Your task to perform on an android device: Go to display settings Image 0: 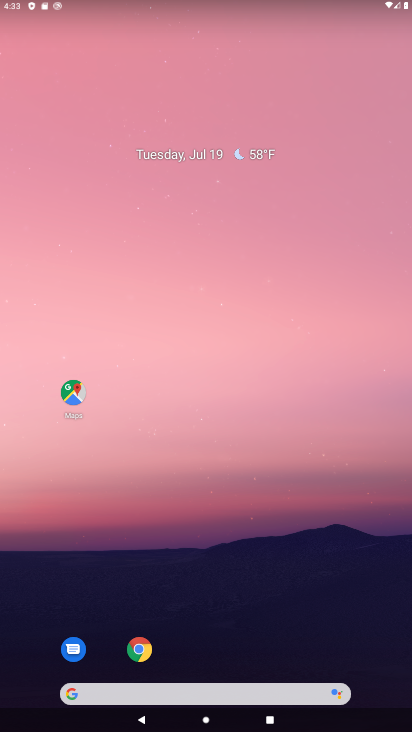
Step 0: drag from (255, 203) to (252, 88)
Your task to perform on an android device: Go to display settings Image 1: 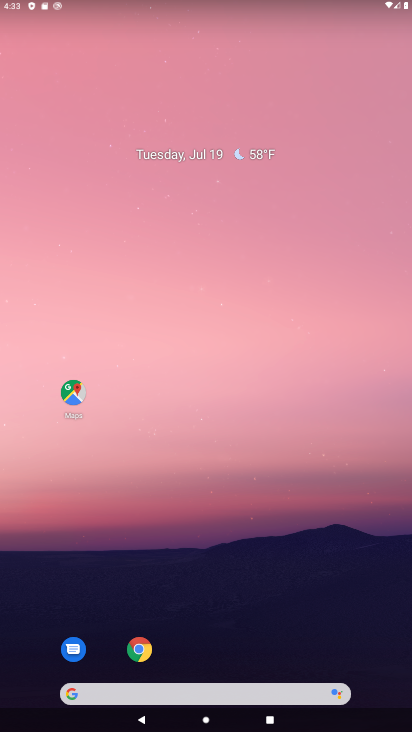
Step 1: drag from (311, 669) to (260, 141)
Your task to perform on an android device: Go to display settings Image 2: 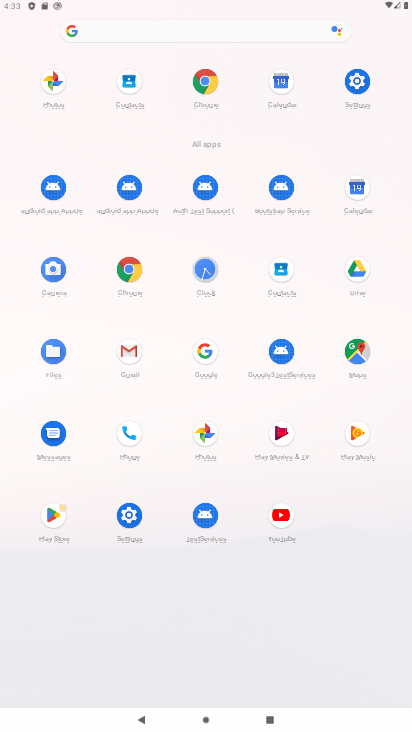
Step 2: click (352, 73)
Your task to perform on an android device: Go to display settings Image 3: 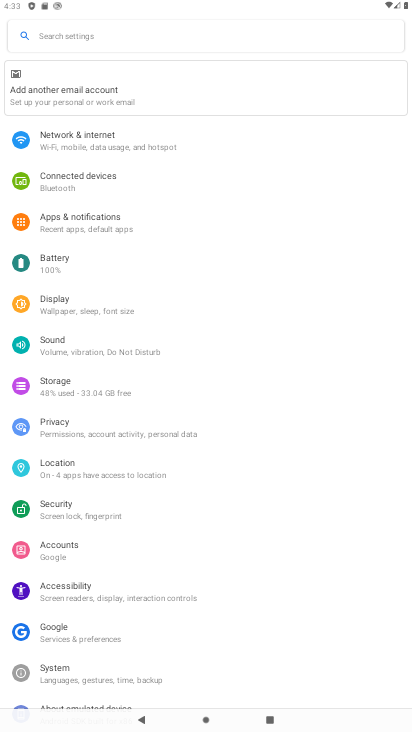
Step 3: click (120, 312)
Your task to perform on an android device: Go to display settings Image 4: 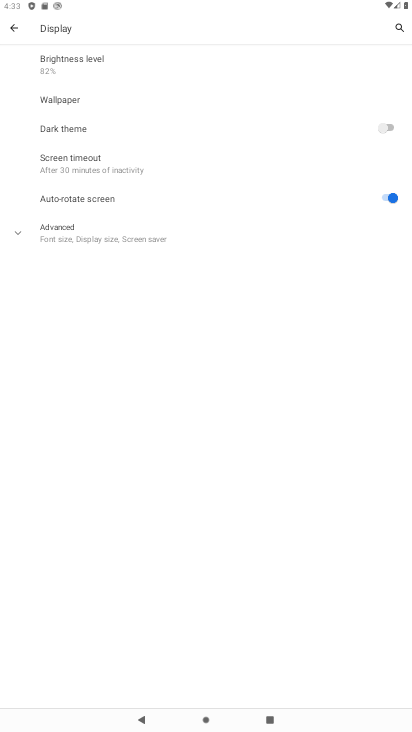
Step 4: task complete